Your task to perform on an android device: toggle javascript in the chrome app Image 0: 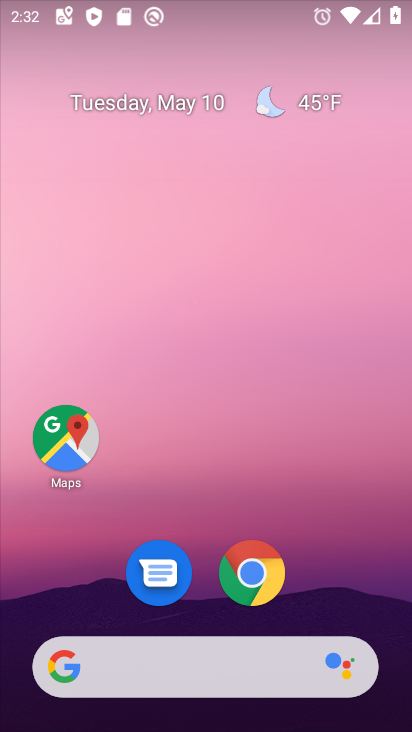
Step 0: click (328, 50)
Your task to perform on an android device: toggle javascript in the chrome app Image 1: 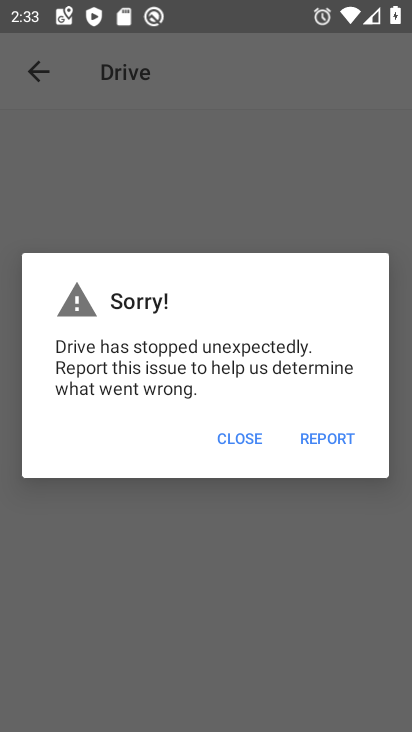
Step 1: press home button
Your task to perform on an android device: toggle javascript in the chrome app Image 2: 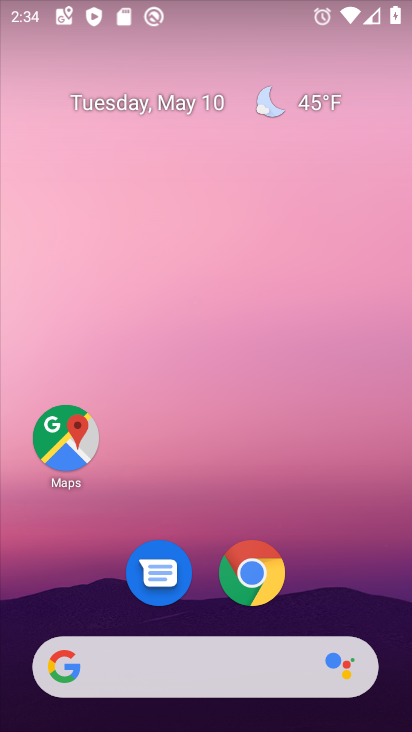
Step 2: click (249, 567)
Your task to perform on an android device: toggle javascript in the chrome app Image 3: 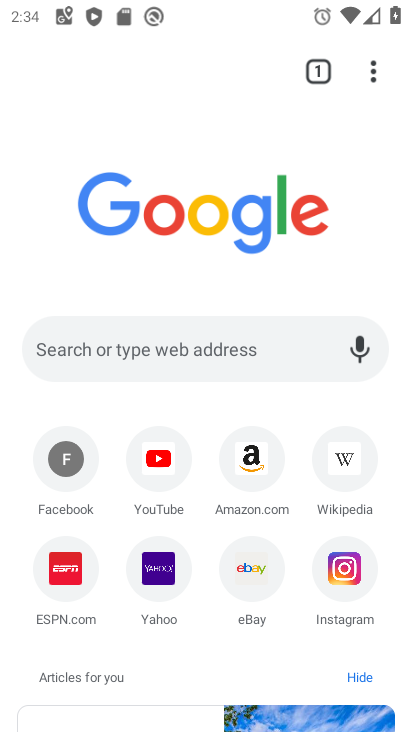
Step 3: click (394, 65)
Your task to perform on an android device: toggle javascript in the chrome app Image 4: 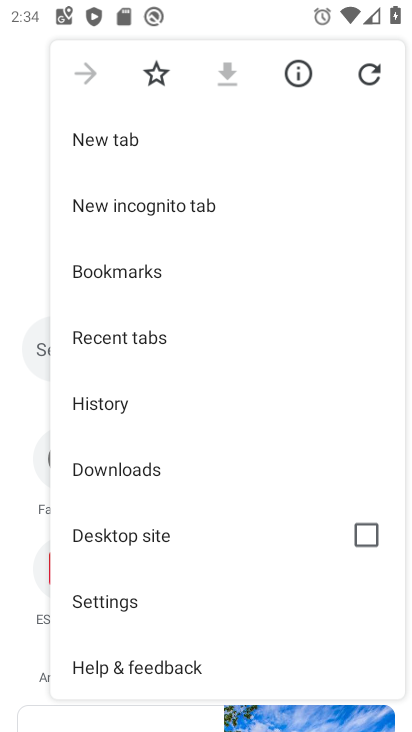
Step 4: click (160, 610)
Your task to perform on an android device: toggle javascript in the chrome app Image 5: 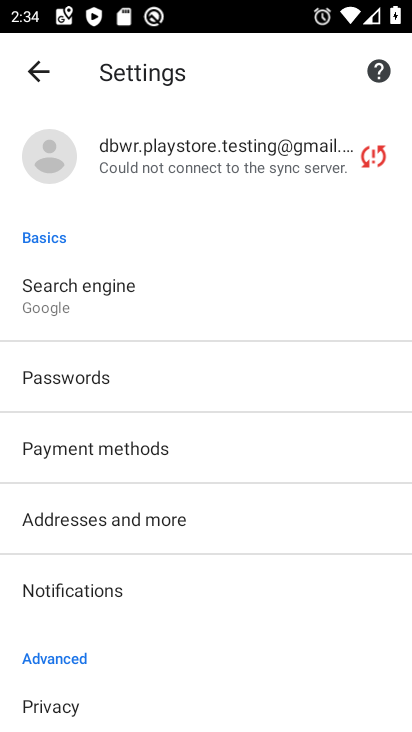
Step 5: drag from (222, 687) to (202, 175)
Your task to perform on an android device: toggle javascript in the chrome app Image 6: 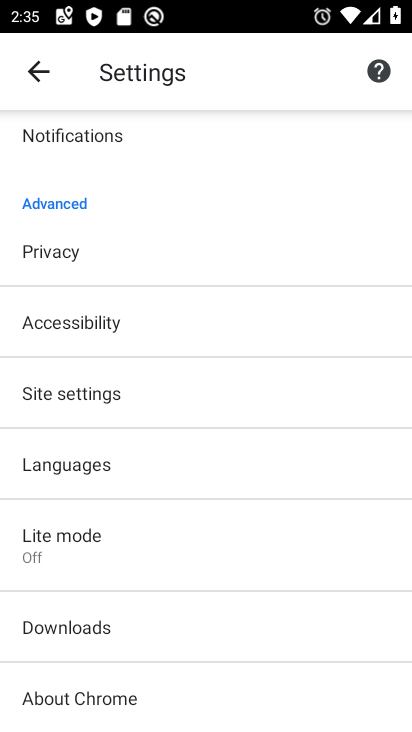
Step 6: click (82, 402)
Your task to perform on an android device: toggle javascript in the chrome app Image 7: 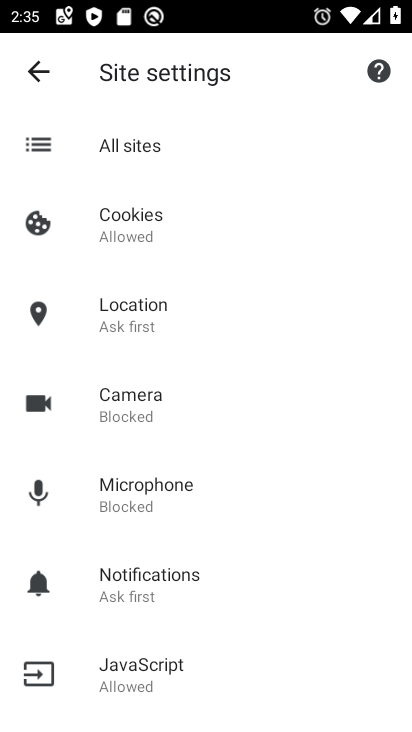
Step 7: click (142, 678)
Your task to perform on an android device: toggle javascript in the chrome app Image 8: 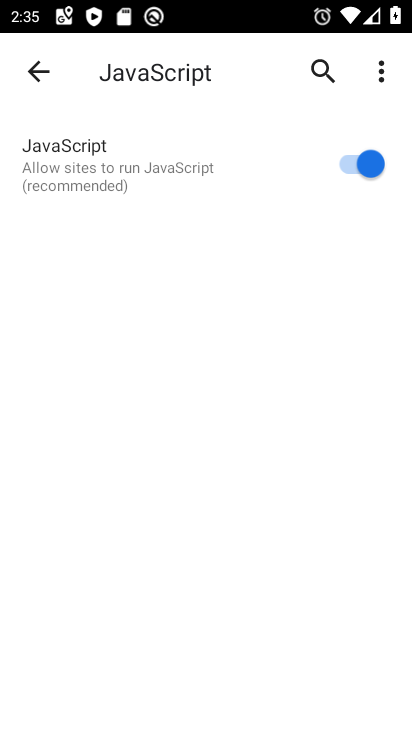
Step 8: click (373, 166)
Your task to perform on an android device: toggle javascript in the chrome app Image 9: 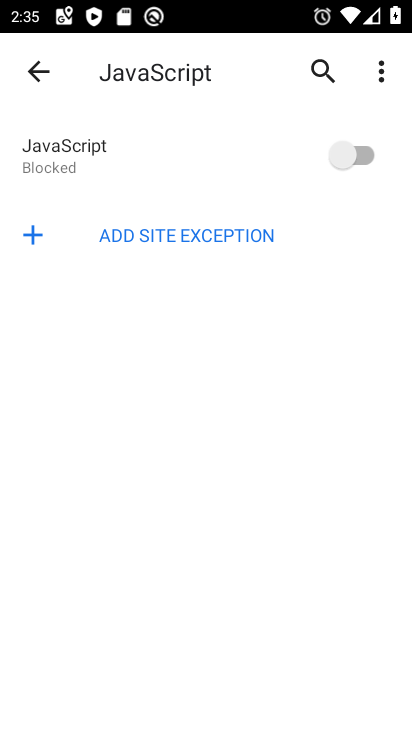
Step 9: task complete